Your task to perform on an android device: What is the recent news? Image 0: 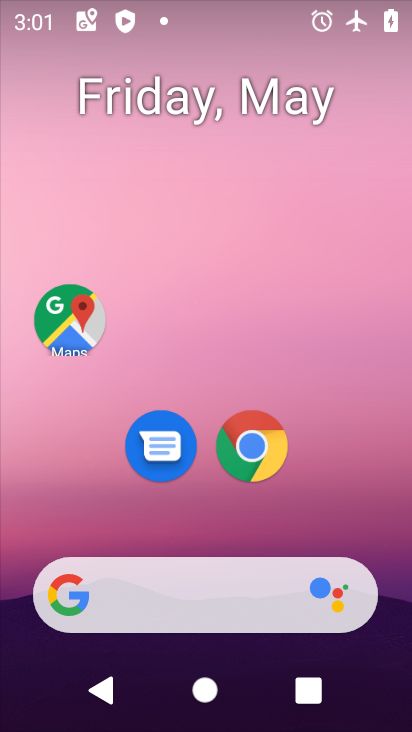
Step 0: click (240, 588)
Your task to perform on an android device: What is the recent news? Image 1: 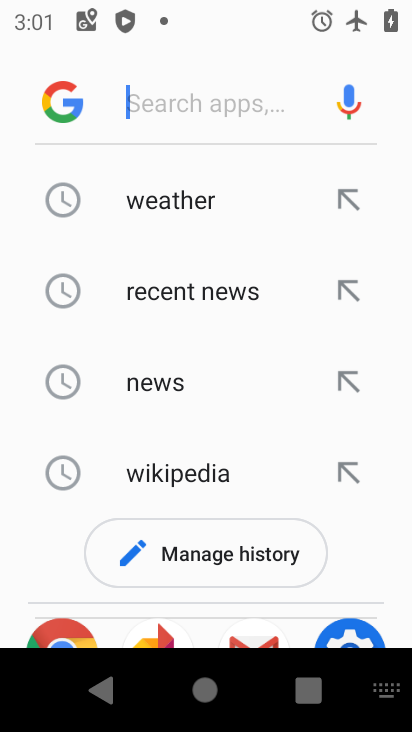
Step 1: click (207, 302)
Your task to perform on an android device: What is the recent news? Image 2: 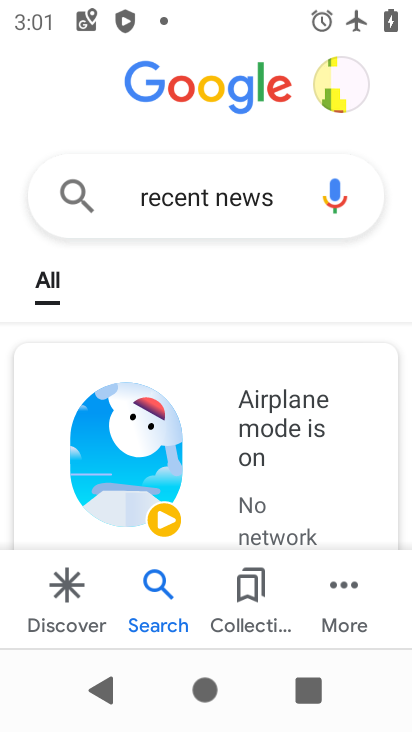
Step 2: task complete